Your task to perform on an android device: Toggle the flashlight Image 0: 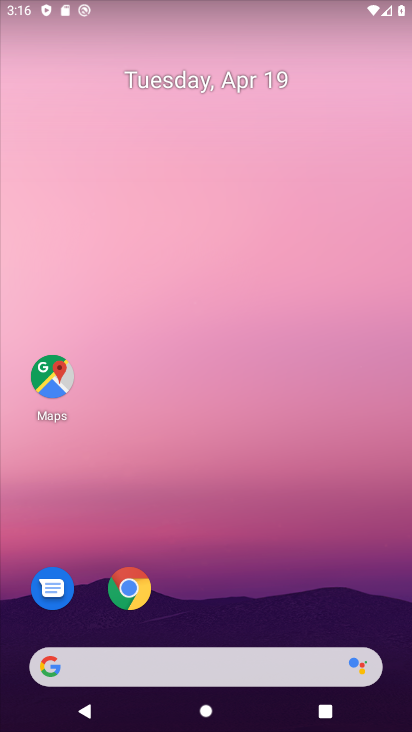
Step 0: drag from (222, 36) to (208, 455)
Your task to perform on an android device: Toggle the flashlight Image 1: 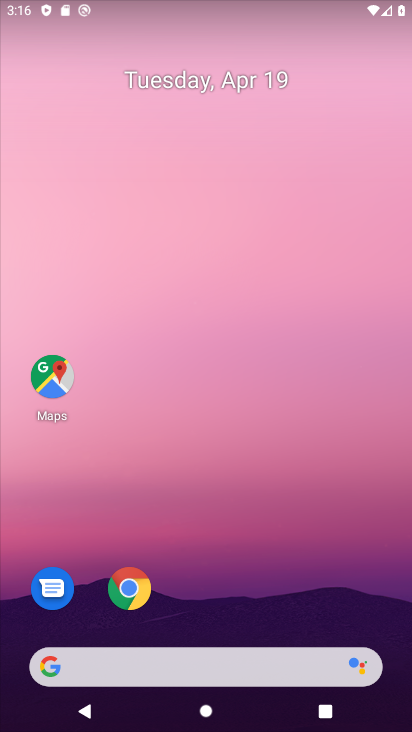
Step 1: task complete